Your task to perform on an android device: turn smart compose on in the gmail app Image 0: 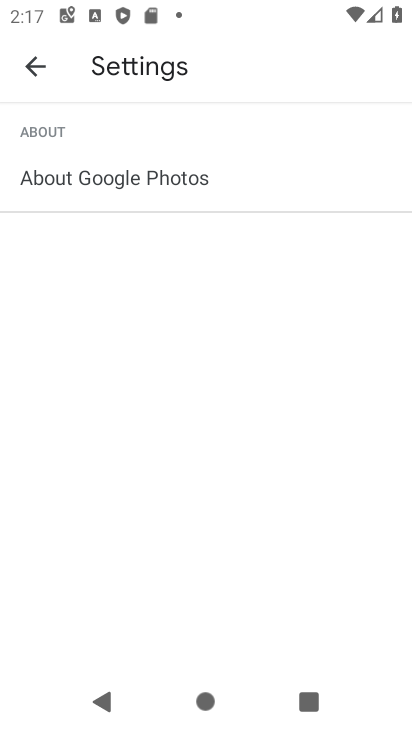
Step 0: press home button
Your task to perform on an android device: turn smart compose on in the gmail app Image 1: 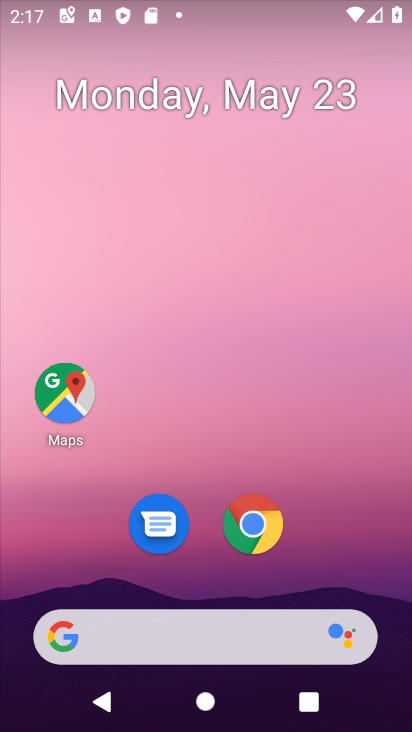
Step 1: drag from (343, 528) to (335, 61)
Your task to perform on an android device: turn smart compose on in the gmail app Image 2: 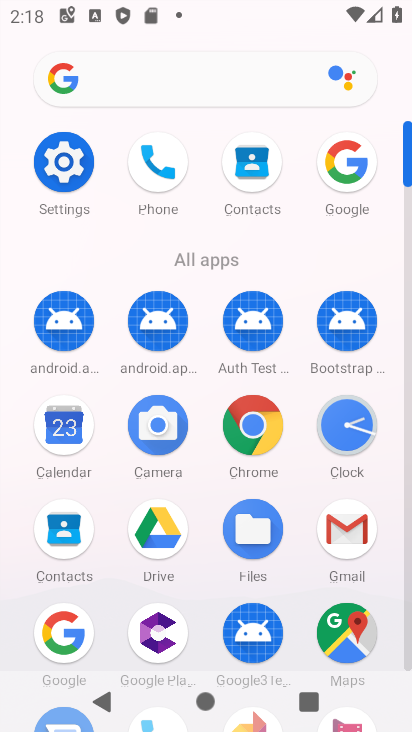
Step 2: click (338, 521)
Your task to perform on an android device: turn smart compose on in the gmail app Image 3: 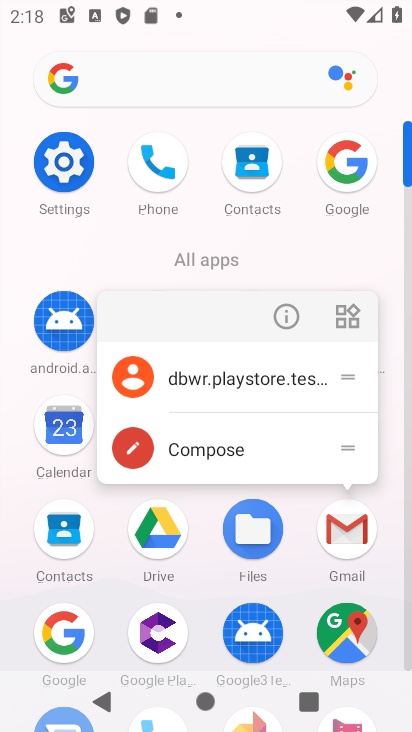
Step 3: click (338, 518)
Your task to perform on an android device: turn smart compose on in the gmail app Image 4: 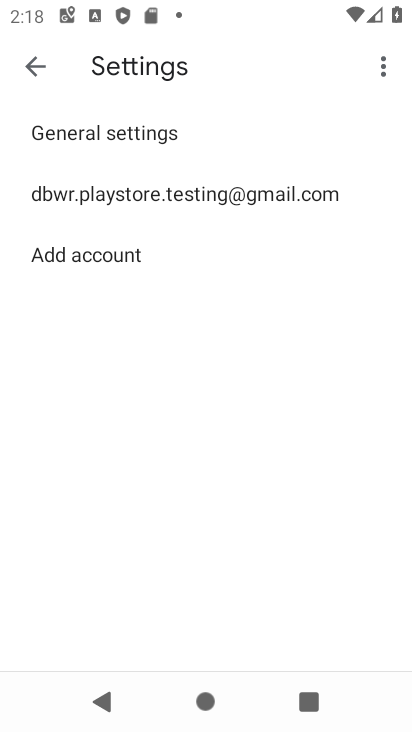
Step 4: click (270, 190)
Your task to perform on an android device: turn smart compose on in the gmail app Image 5: 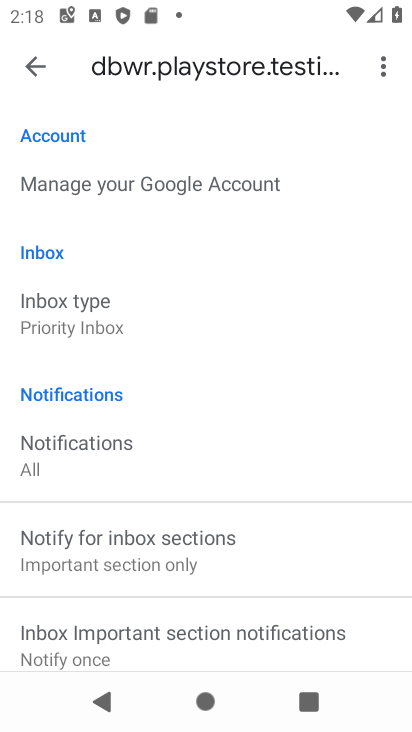
Step 5: drag from (252, 413) to (278, 183)
Your task to perform on an android device: turn smart compose on in the gmail app Image 6: 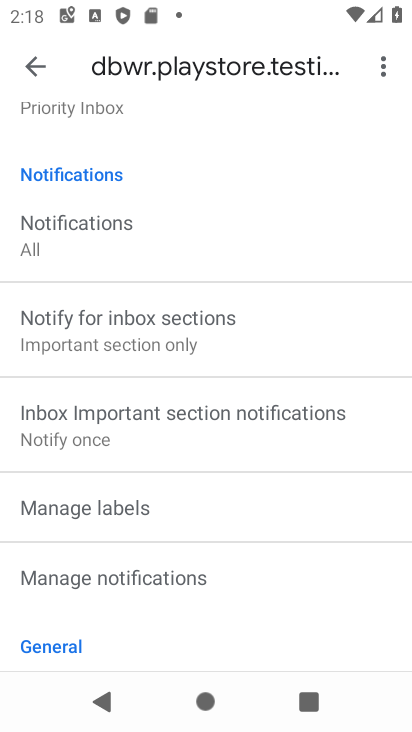
Step 6: click (212, 239)
Your task to perform on an android device: turn smart compose on in the gmail app Image 7: 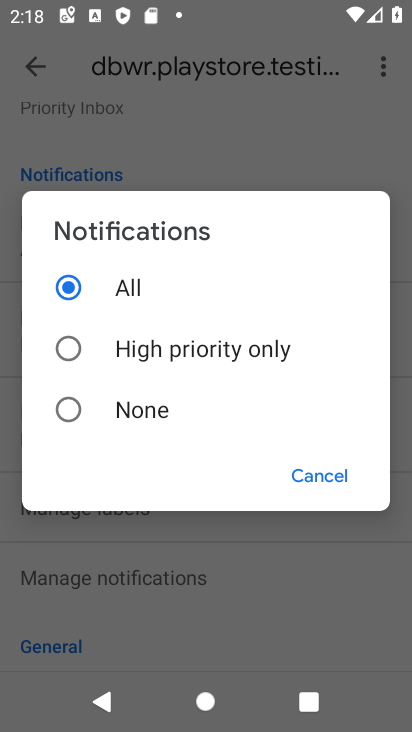
Step 7: click (285, 149)
Your task to perform on an android device: turn smart compose on in the gmail app Image 8: 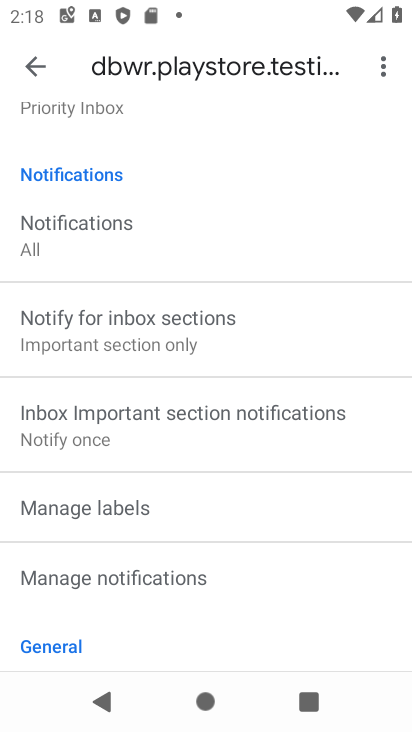
Step 8: task complete